Your task to perform on an android device: Open internet settings Image 0: 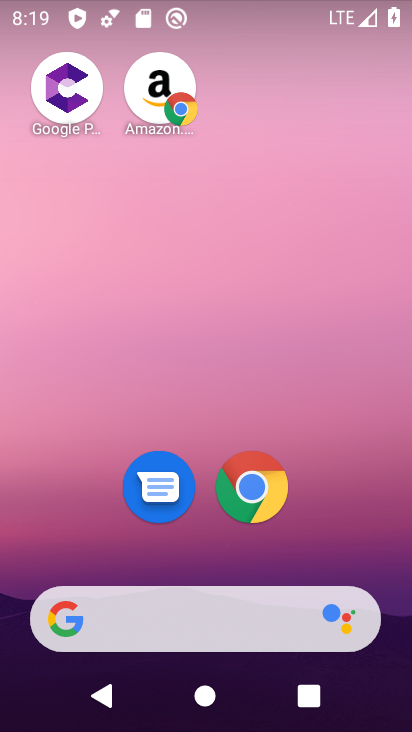
Step 0: drag from (381, 559) to (312, 3)
Your task to perform on an android device: Open internet settings Image 1: 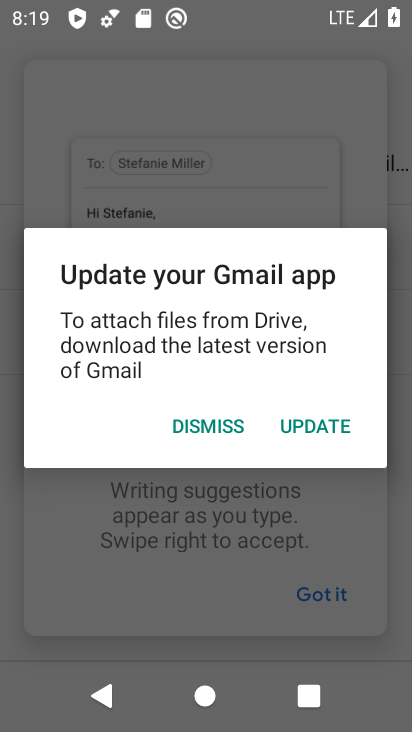
Step 1: click (358, 159)
Your task to perform on an android device: Open internet settings Image 2: 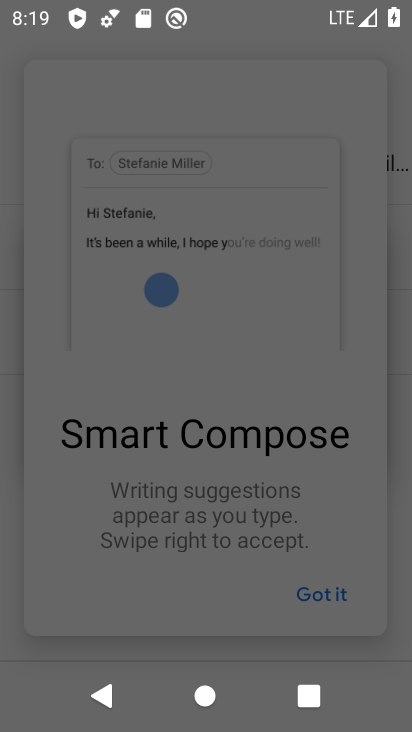
Step 2: press home button
Your task to perform on an android device: Open internet settings Image 3: 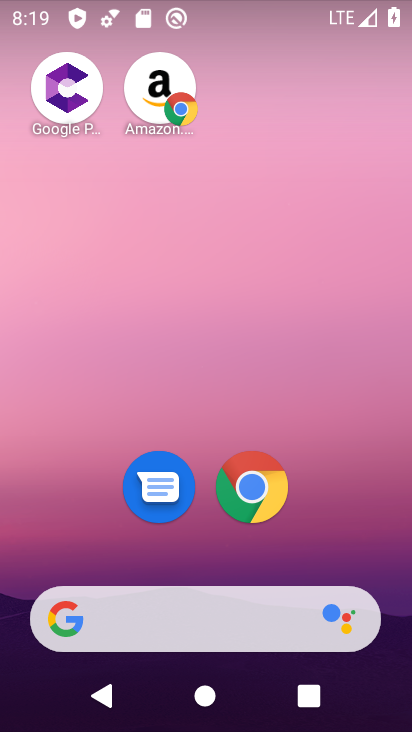
Step 3: drag from (347, 521) to (282, 52)
Your task to perform on an android device: Open internet settings Image 4: 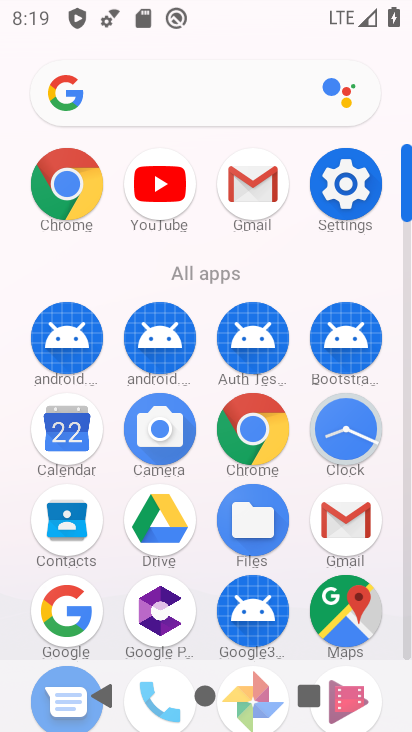
Step 4: click (359, 173)
Your task to perform on an android device: Open internet settings Image 5: 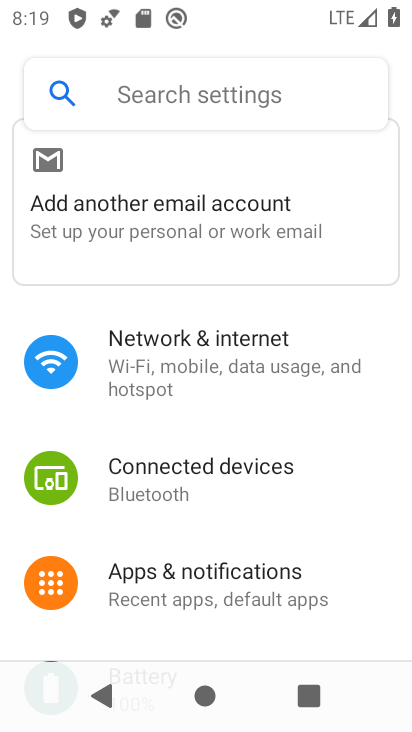
Step 5: click (182, 360)
Your task to perform on an android device: Open internet settings Image 6: 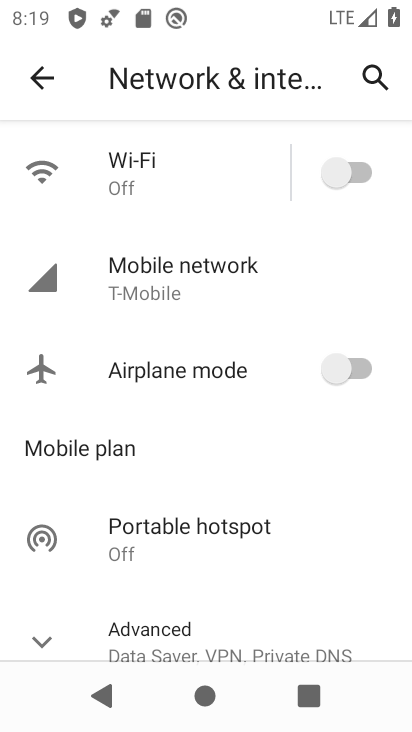
Step 6: task complete